Your task to perform on an android device: Open Google Chrome Image 0: 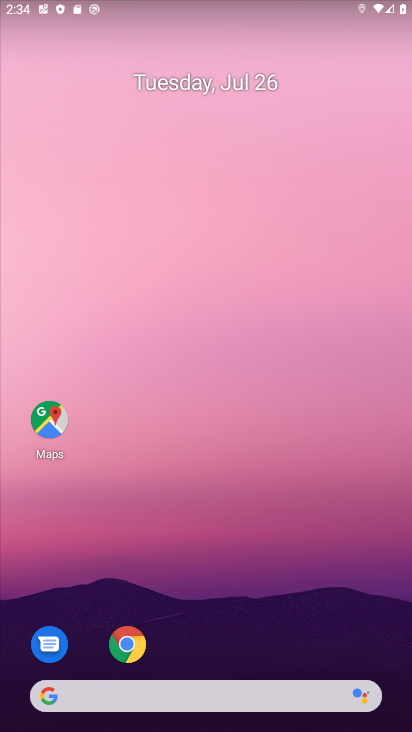
Step 0: press home button
Your task to perform on an android device: Open Google Chrome Image 1: 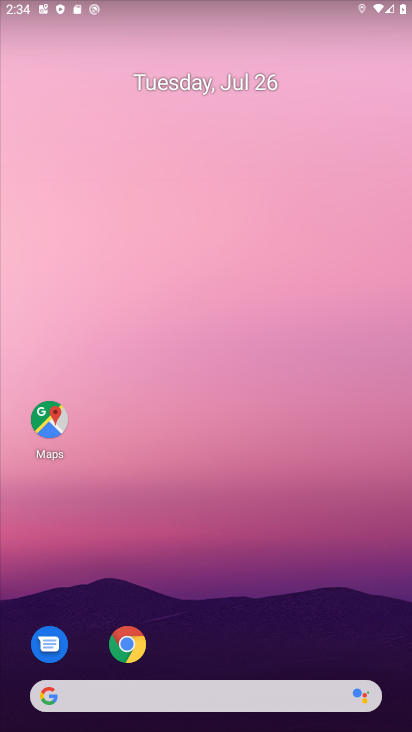
Step 1: click (133, 642)
Your task to perform on an android device: Open Google Chrome Image 2: 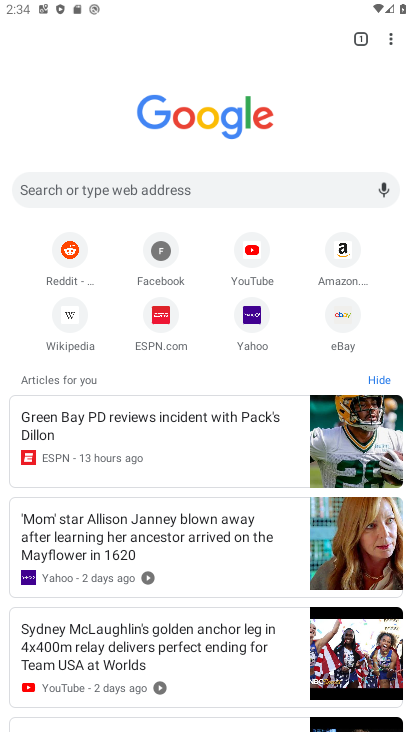
Step 2: task complete